Your task to perform on an android device: change alarm snooze length Image 0: 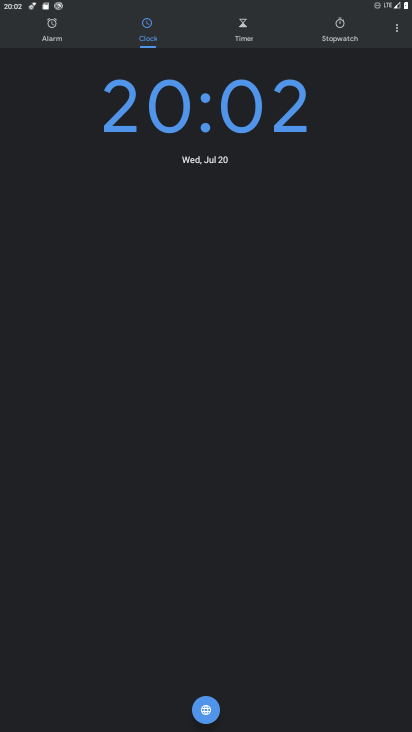
Step 0: press home button
Your task to perform on an android device: change alarm snooze length Image 1: 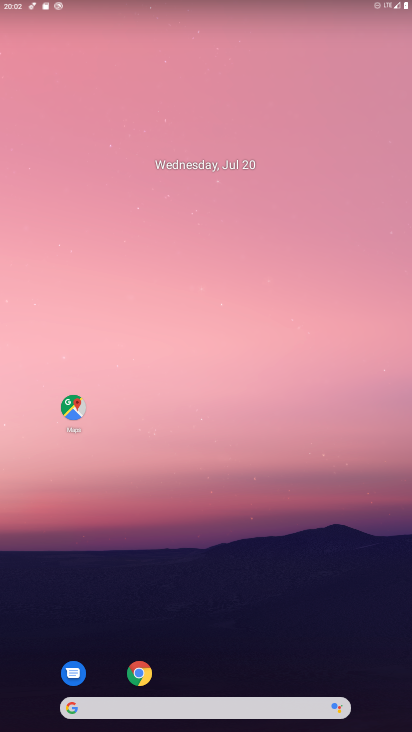
Step 1: drag from (213, 633) to (277, 124)
Your task to perform on an android device: change alarm snooze length Image 2: 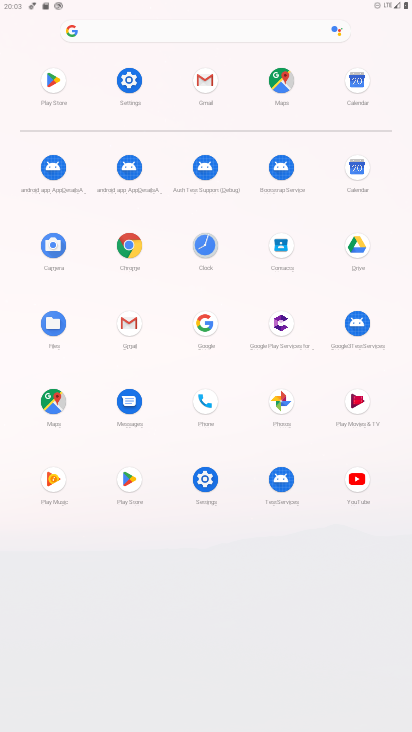
Step 2: click (210, 253)
Your task to perform on an android device: change alarm snooze length Image 3: 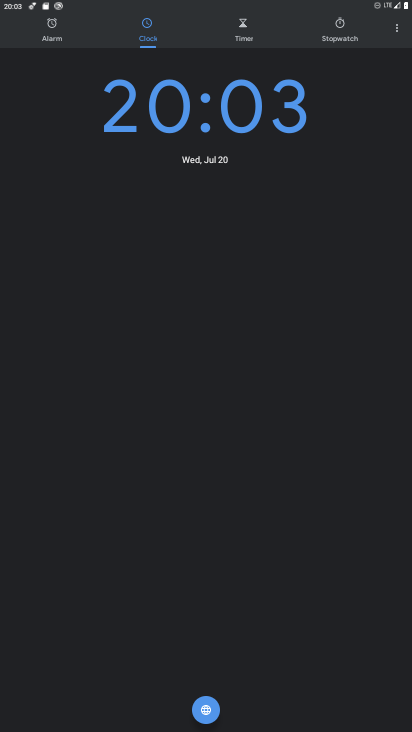
Step 3: click (399, 25)
Your task to perform on an android device: change alarm snooze length Image 4: 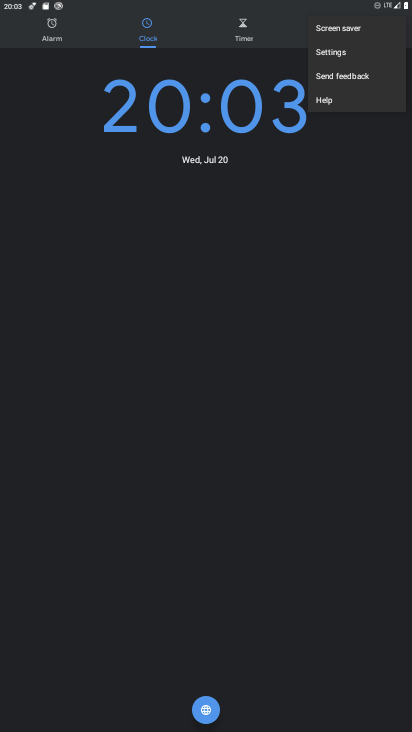
Step 4: click (327, 55)
Your task to perform on an android device: change alarm snooze length Image 5: 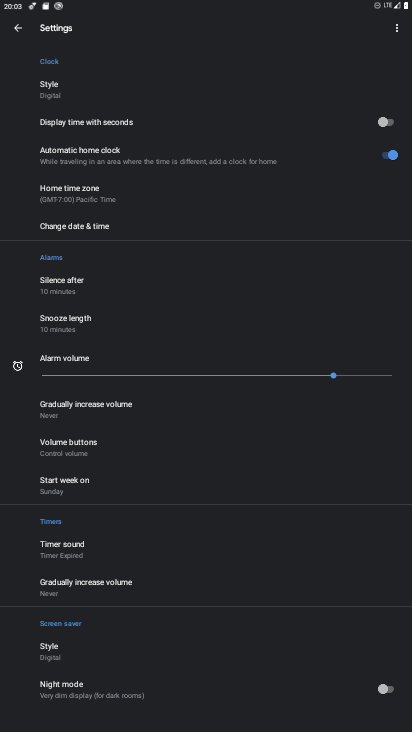
Step 5: click (73, 324)
Your task to perform on an android device: change alarm snooze length Image 6: 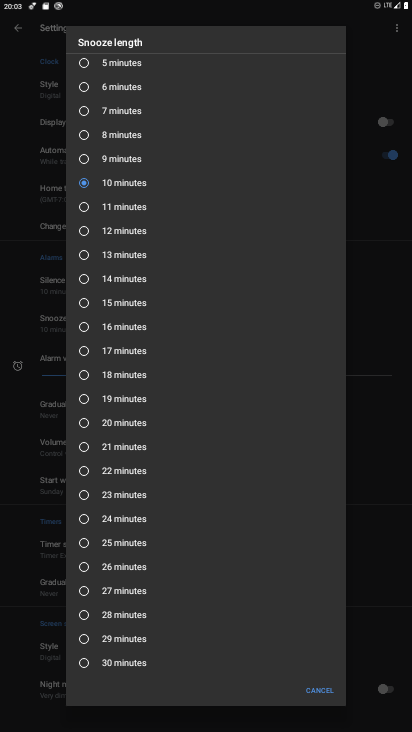
Step 6: click (112, 321)
Your task to perform on an android device: change alarm snooze length Image 7: 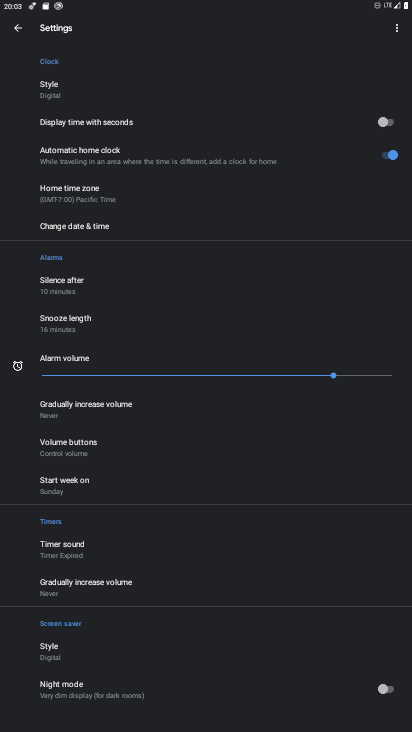
Step 7: task complete